Your task to perform on an android device: Go to wifi settings Image 0: 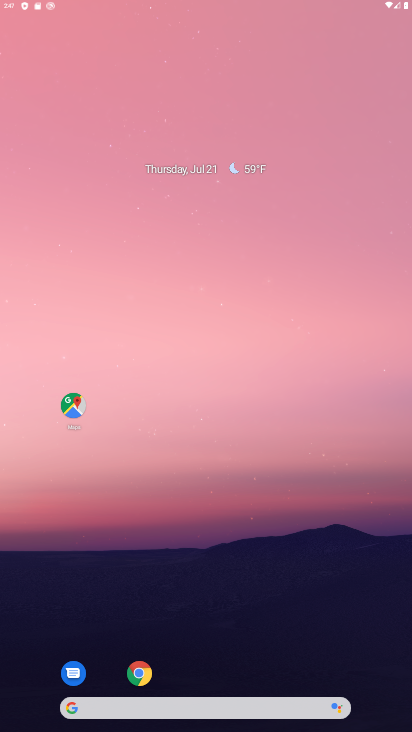
Step 0: click (313, 47)
Your task to perform on an android device: Go to wifi settings Image 1: 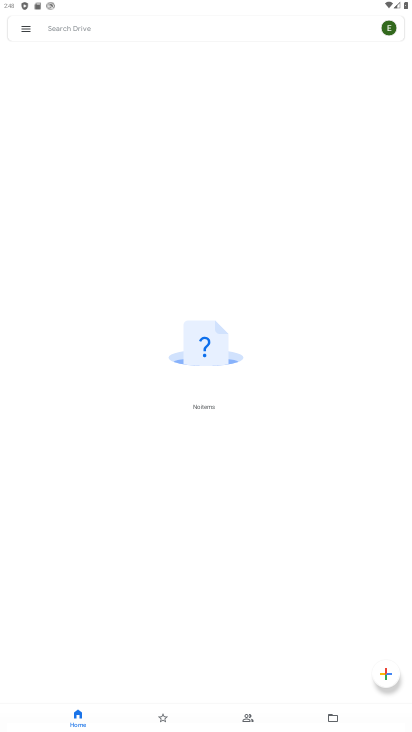
Step 1: press home button
Your task to perform on an android device: Go to wifi settings Image 2: 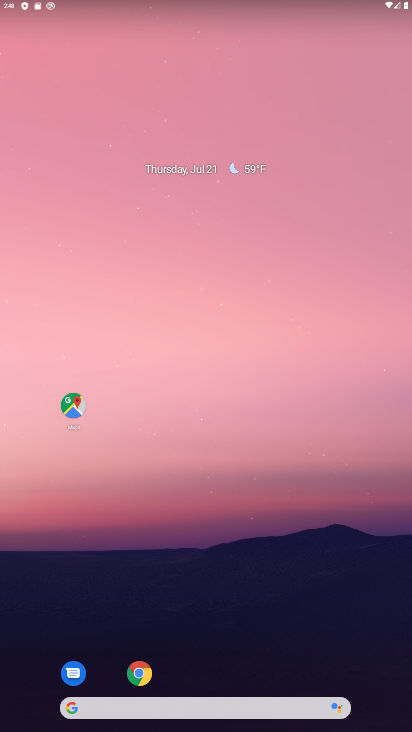
Step 2: click (321, 112)
Your task to perform on an android device: Go to wifi settings Image 3: 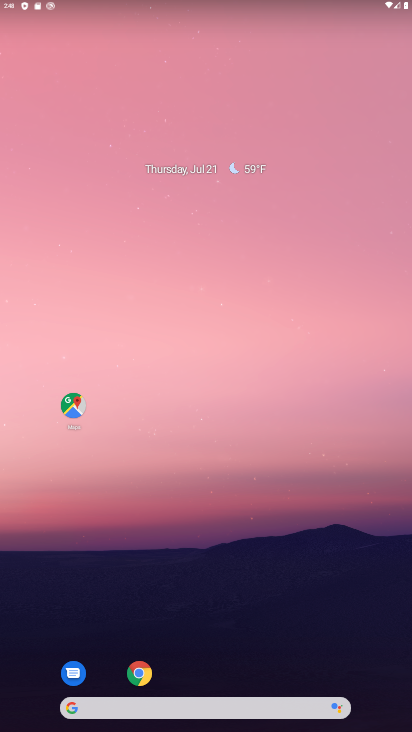
Step 3: drag from (380, 692) to (310, 74)
Your task to perform on an android device: Go to wifi settings Image 4: 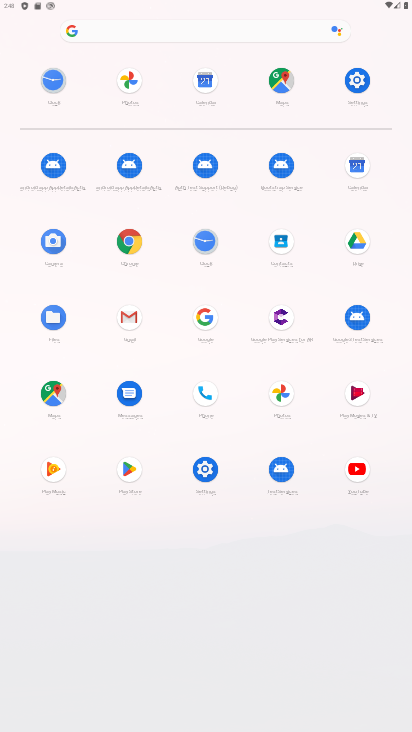
Step 4: click (203, 470)
Your task to perform on an android device: Go to wifi settings Image 5: 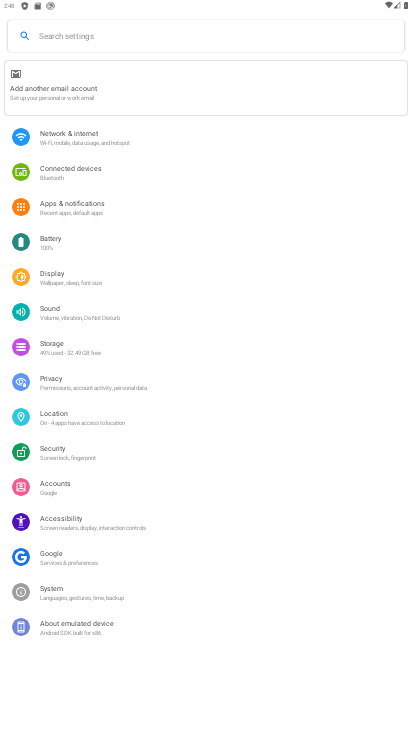
Step 5: click (59, 134)
Your task to perform on an android device: Go to wifi settings Image 6: 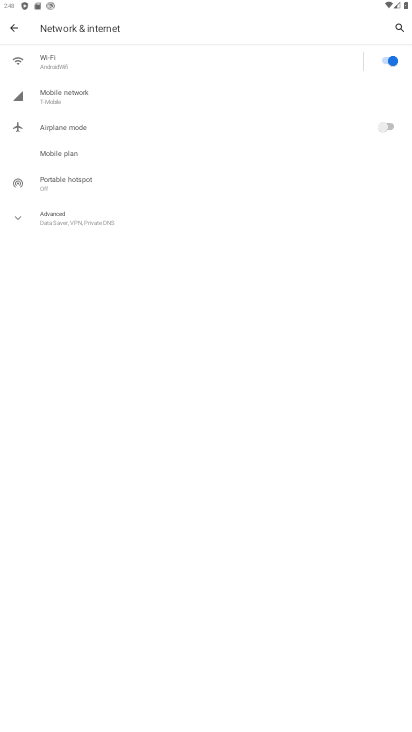
Step 6: click (44, 62)
Your task to perform on an android device: Go to wifi settings Image 7: 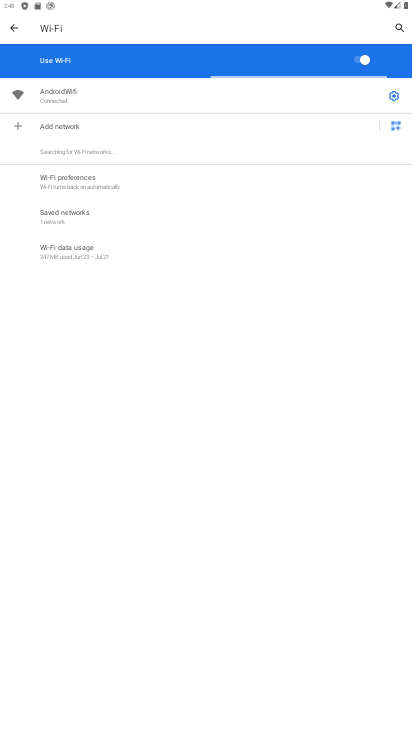
Step 7: task complete